Your task to perform on an android device: Search for sushi restaurants on Maps Image 0: 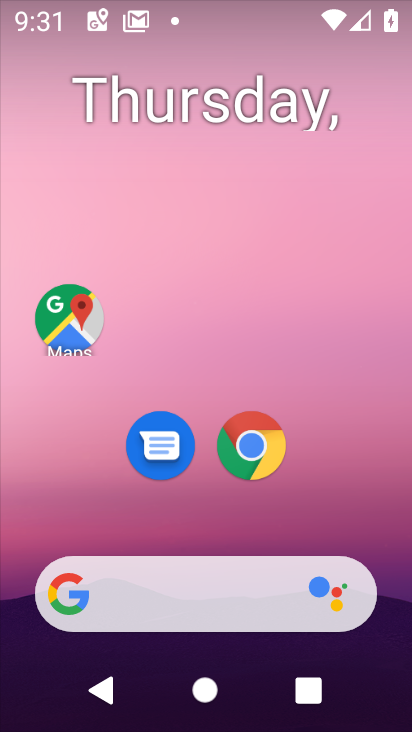
Step 0: click (63, 341)
Your task to perform on an android device: Search for sushi restaurants on Maps Image 1: 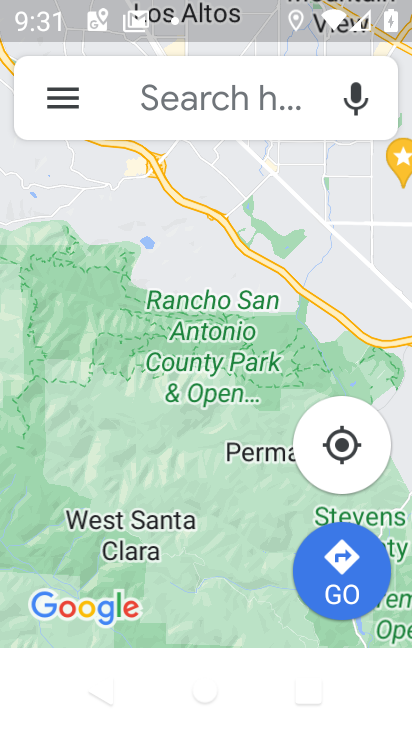
Step 1: click (237, 99)
Your task to perform on an android device: Search for sushi restaurants on Maps Image 2: 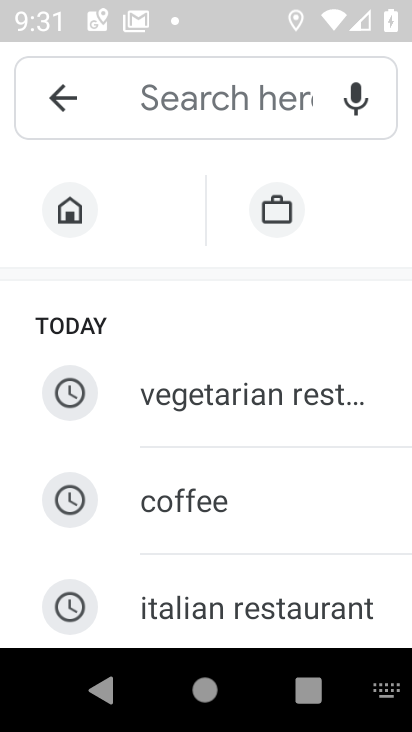
Step 2: click (143, 393)
Your task to perform on an android device: Search for sushi restaurants on Maps Image 3: 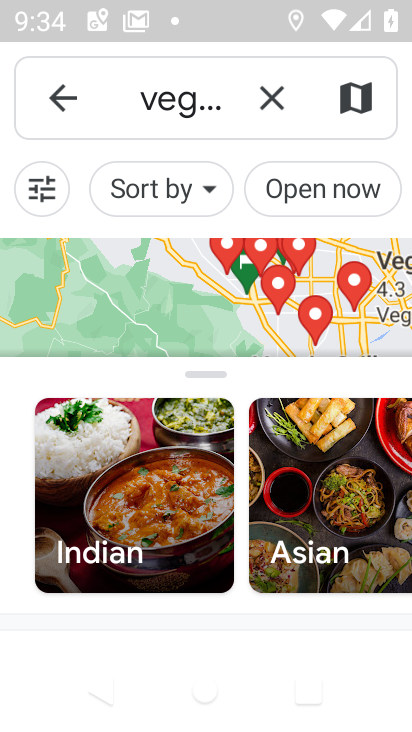
Step 3: click (65, 467)
Your task to perform on an android device: Search for sushi restaurants on Maps Image 4: 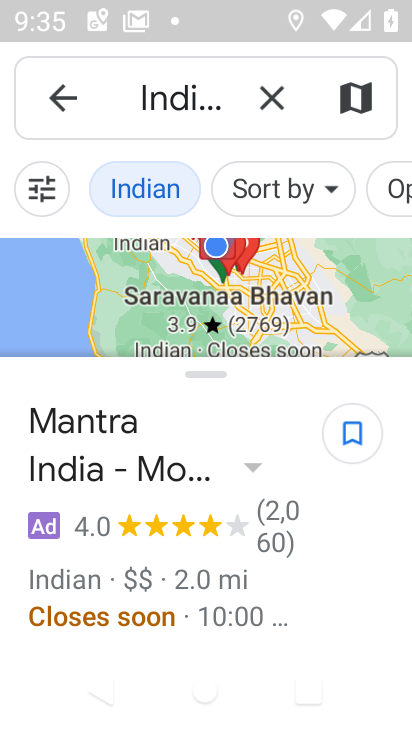
Step 4: click (261, 103)
Your task to perform on an android device: Search for sushi restaurants on Maps Image 5: 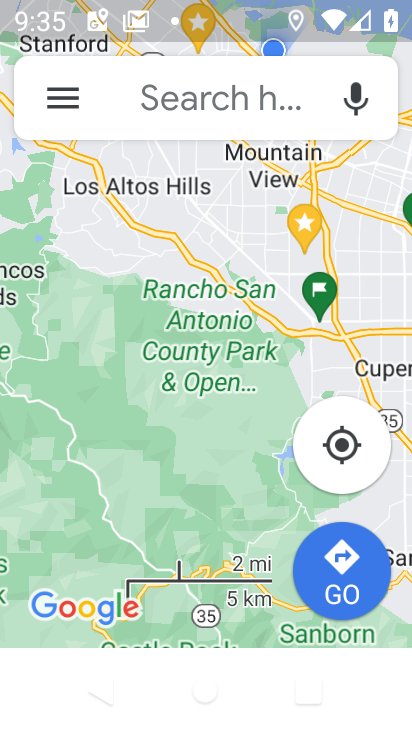
Step 5: click (170, 111)
Your task to perform on an android device: Search for sushi restaurants on Maps Image 6: 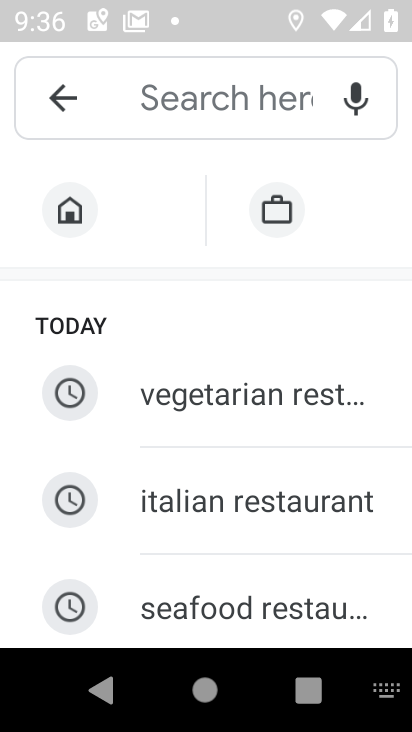
Step 6: drag from (245, 595) to (257, 336)
Your task to perform on an android device: Search for sushi restaurants on Maps Image 7: 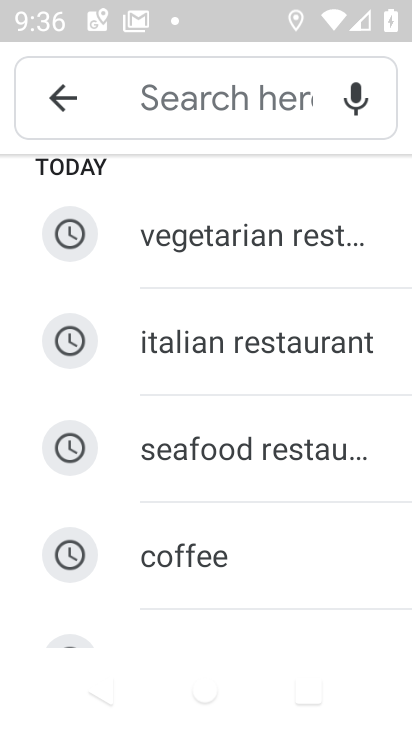
Step 7: drag from (202, 557) to (221, 283)
Your task to perform on an android device: Search for sushi restaurants on Maps Image 8: 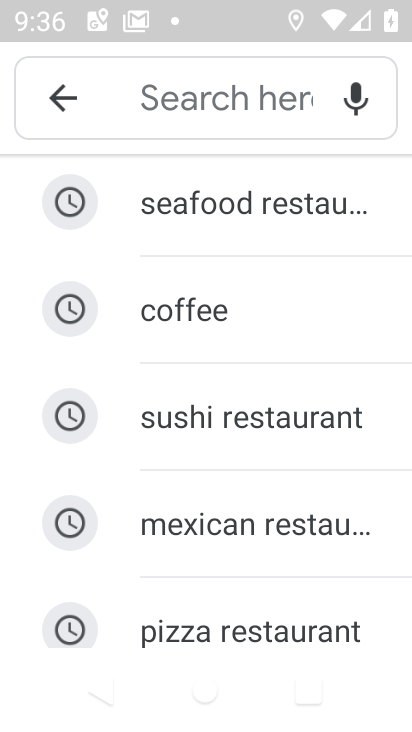
Step 8: drag from (211, 581) to (209, 352)
Your task to perform on an android device: Search for sushi restaurants on Maps Image 9: 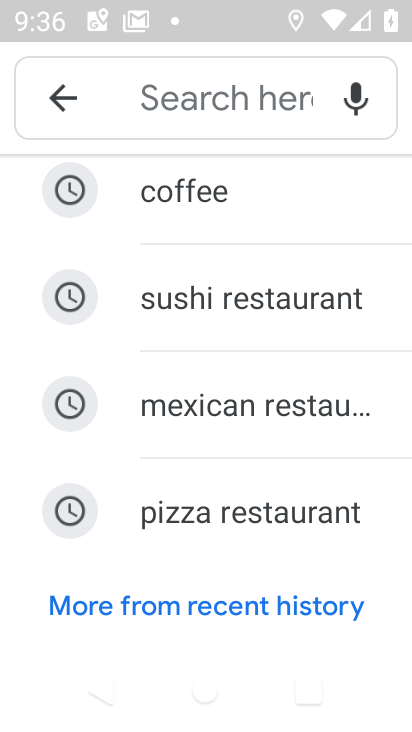
Step 9: click (204, 299)
Your task to perform on an android device: Search for sushi restaurants on Maps Image 10: 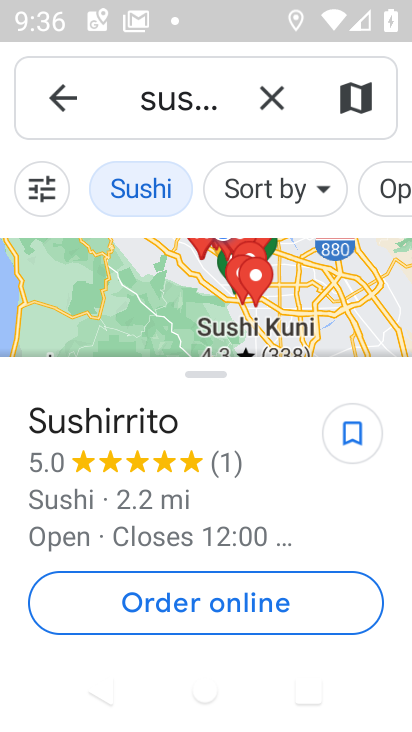
Step 10: task complete